Your task to perform on an android device: Go to eBay Image 0: 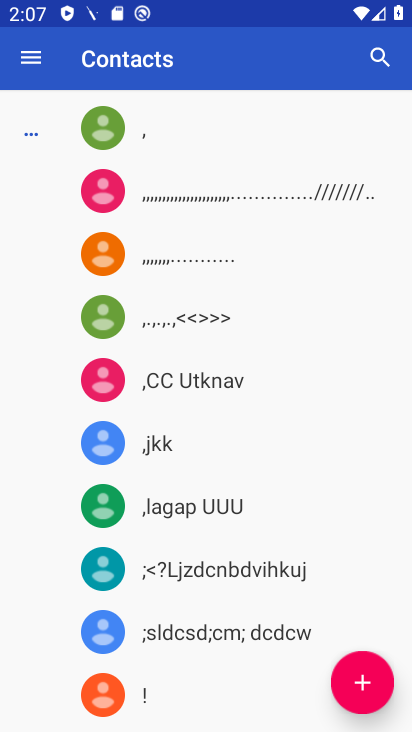
Step 0: press back button
Your task to perform on an android device: Go to eBay Image 1: 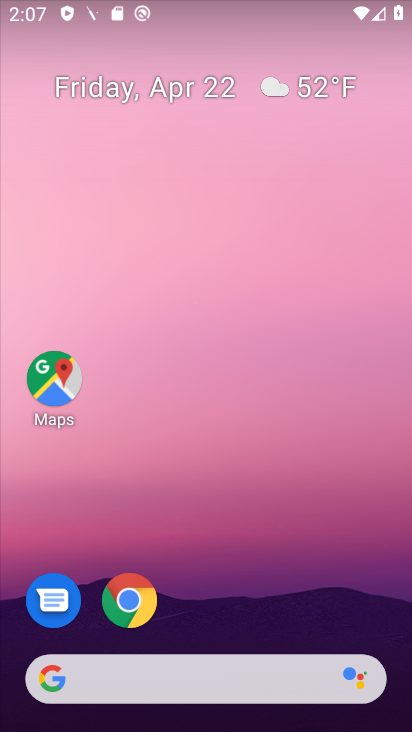
Step 1: drag from (274, 583) to (223, 0)
Your task to perform on an android device: Go to eBay Image 2: 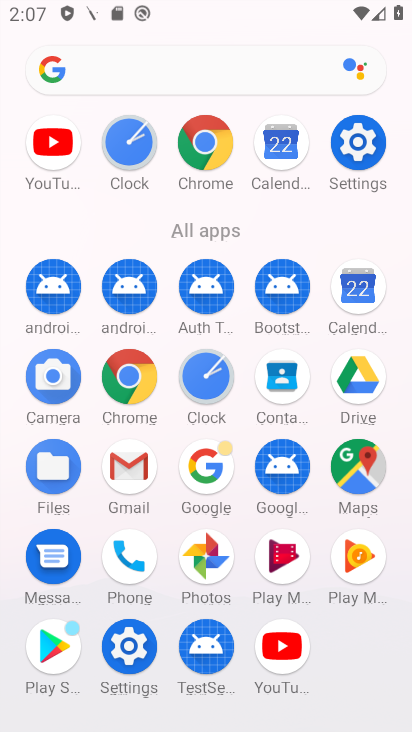
Step 2: click (118, 370)
Your task to perform on an android device: Go to eBay Image 3: 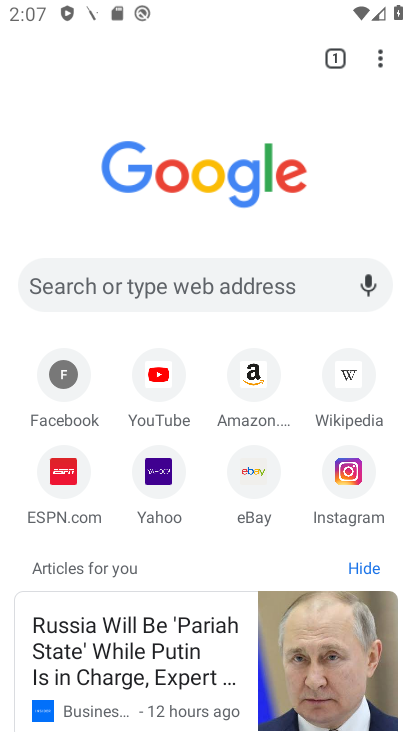
Step 3: click (171, 272)
Your task to perform on an android device: Go to eBay Image 4: 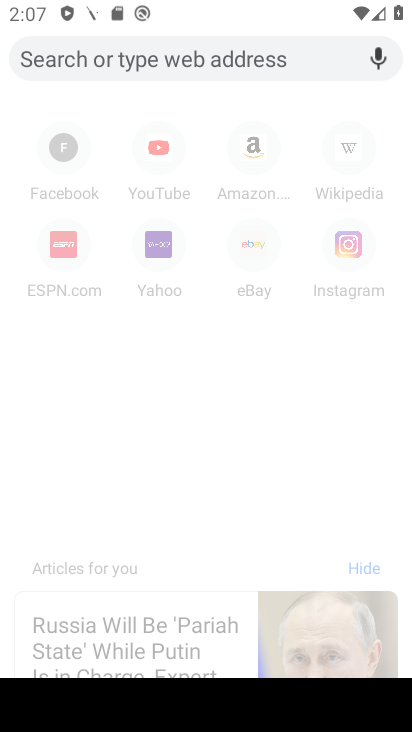
Step 4: click (260, 242)
Your task to perform on an android device: Go to eBay Image 5: 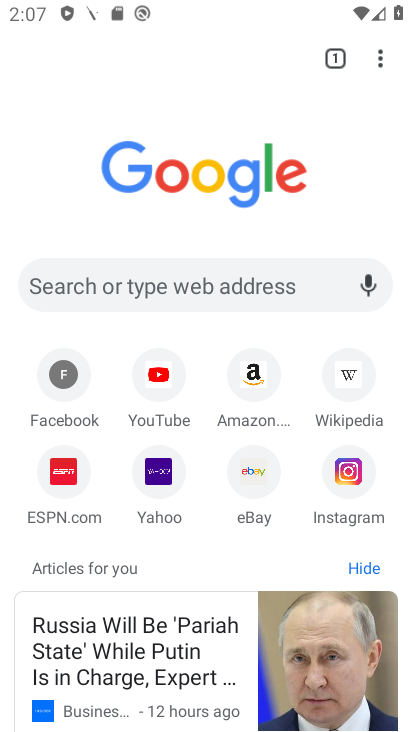
Step 5: click (237, 424)
Your task to perform on an android device: Go to eBay Image 6: 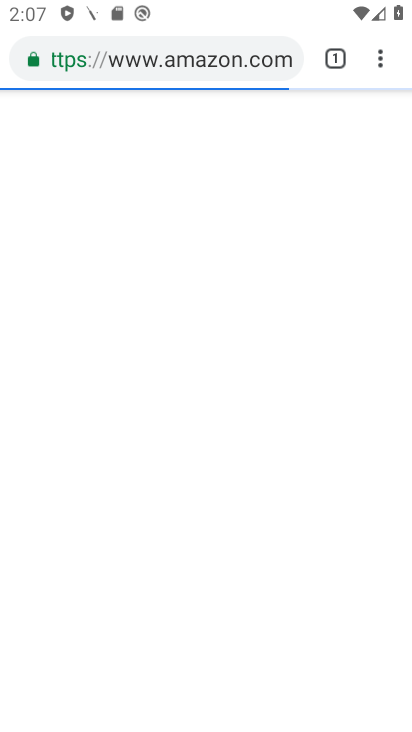
Step 6: click (252, 465)
Your task to perform on an android device: Go to eBay Image 7: 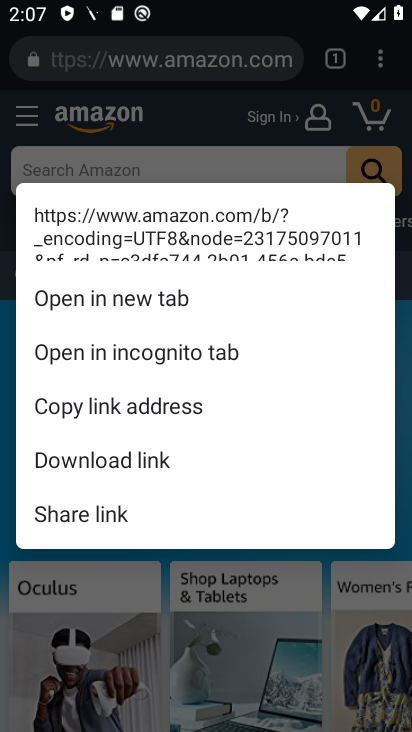
Step 7: press back button
Your task to perform on an android device: Go to eBay Image 8: 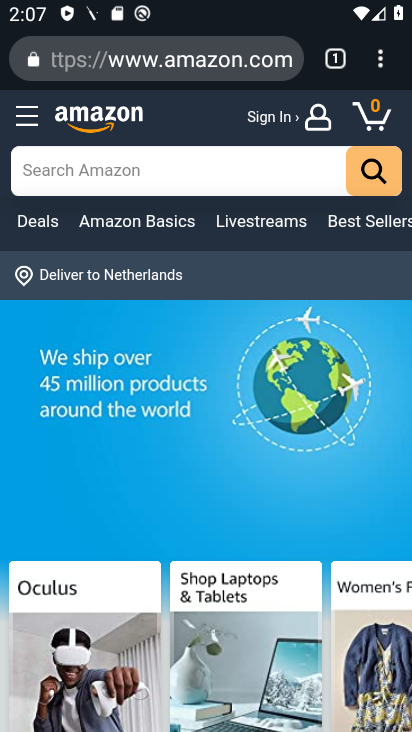
Step 8: press back button
Your task to perform on an android device: Go to eBay Image 9: 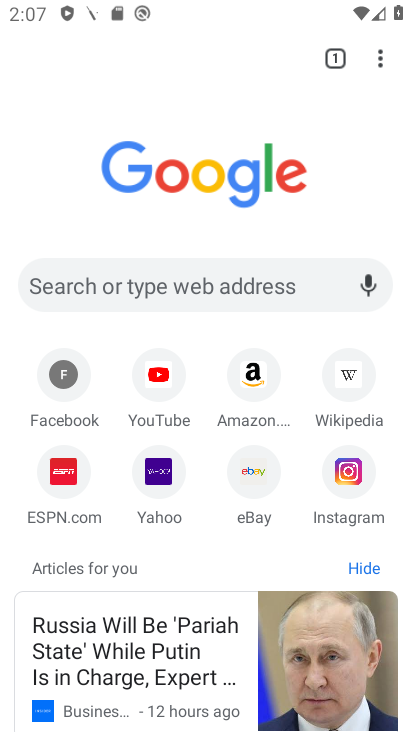
Step 9: click (241, 466)
Your task to perform on an android device: Go to eBay Image 10: 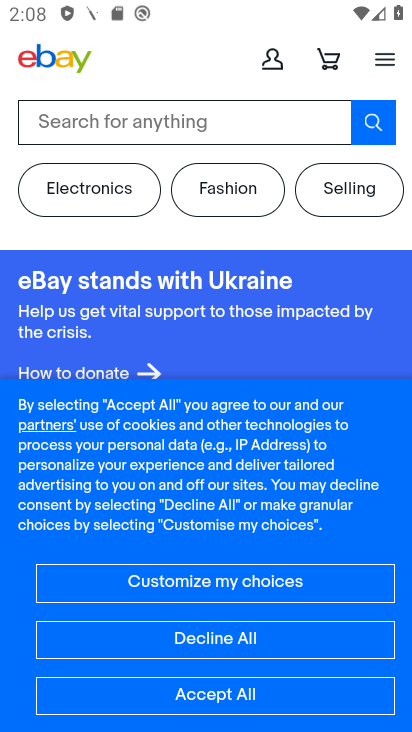
Step 10: task complete